Your task to perform on an android device: check storage Image 0: 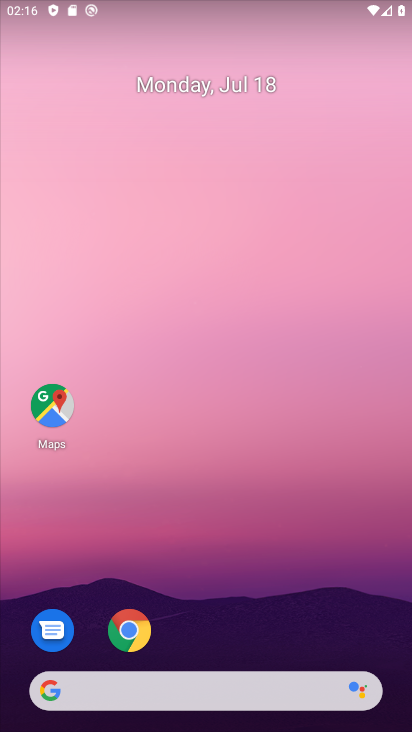
Step 0: drag from (218, 559) to (156, 269)
Your task to perform on an android device: check storage Image 1: 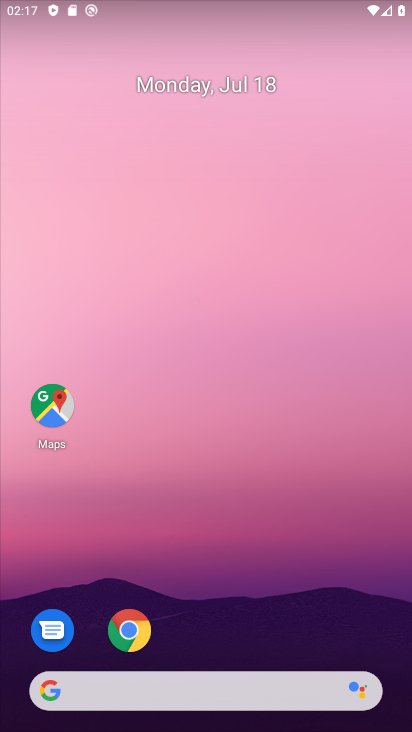
Step 1: drag from (211, 606) to (174, 74)
Your task to perform on an android device: check storage Image 2: 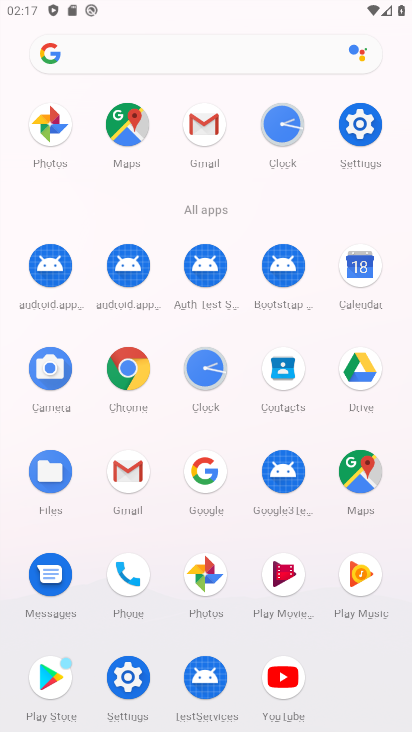
Step 2: click (362, 149)
Your task to perform on an android device: check storage Image 3: 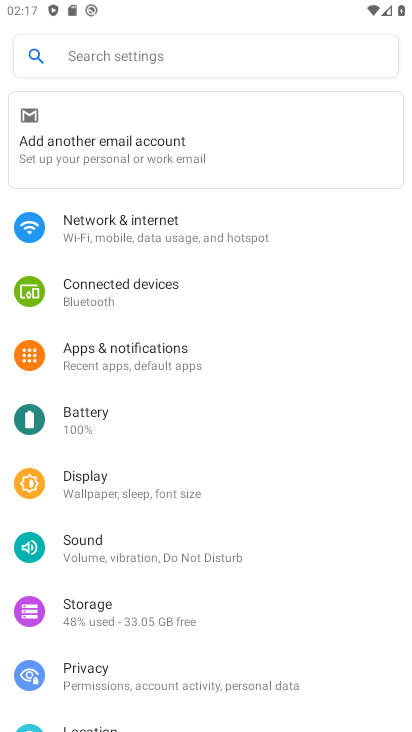
Step 3: click (98, 606)
Your task to perform on an android device: check storage Image 4: 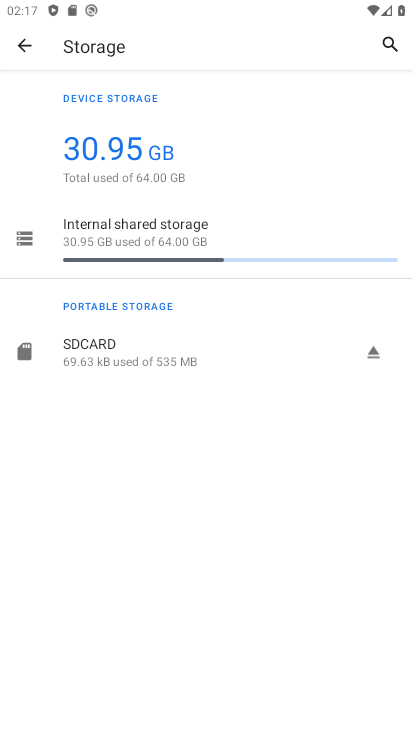
Step 4: task complete